Your task to perform on an android device: open app "Google Calendar" (install if not already installed) Image 0: 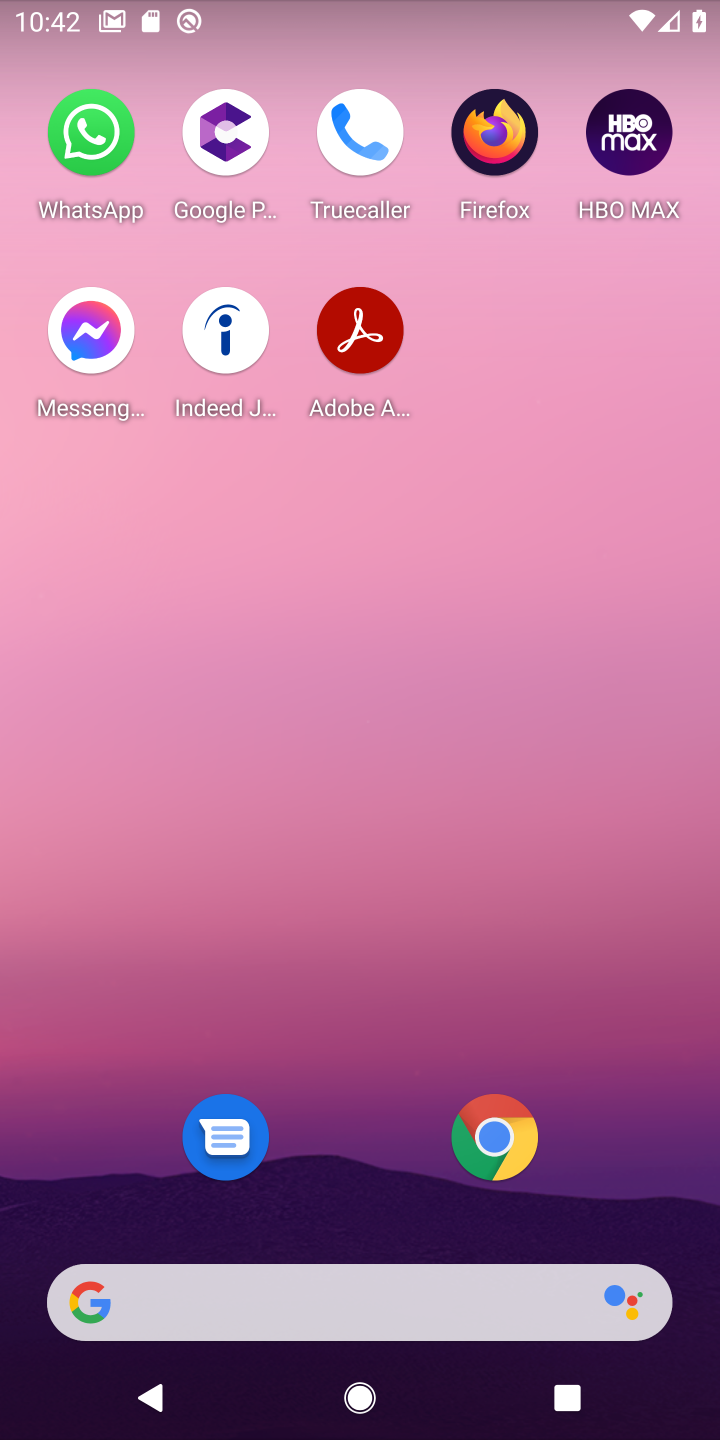
Step 0: drag from (359, 1084) to (244, 0)
Your task to perform on an android device: open app "Google Calendar" (install if not already installed) Image 1: 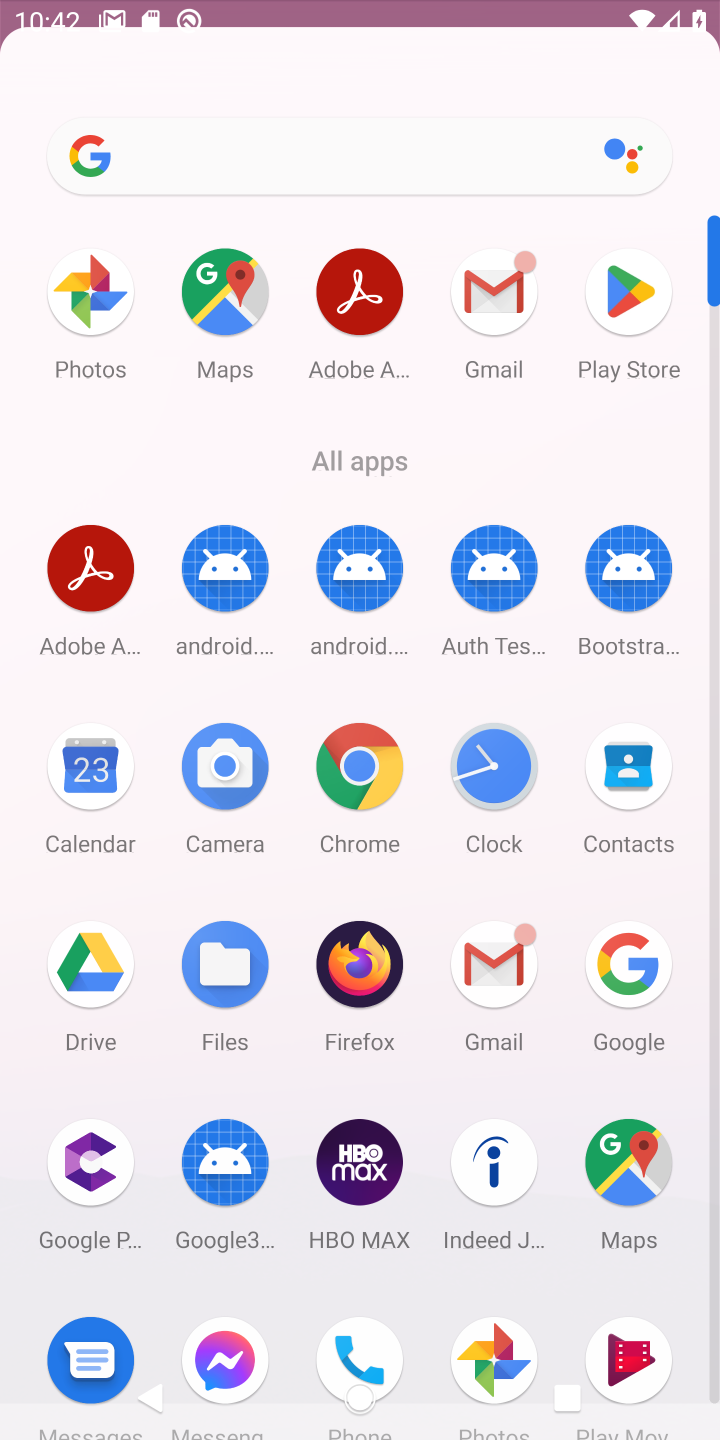
Step 1: click (640, 368)
Your task to perform on an android device: open app "Google Calendar" (install if not already installed) Image 2: 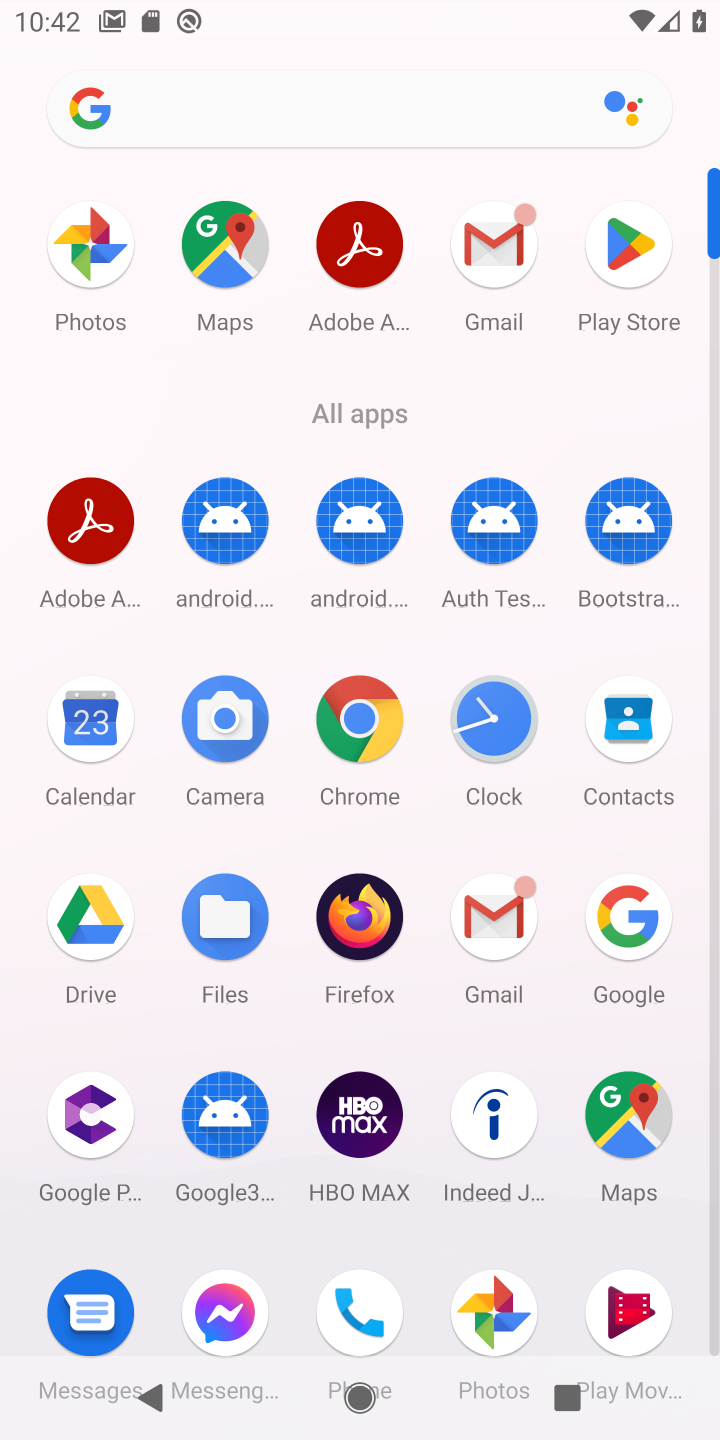
Step 2: click (643, 251)
Your task to perform on an android device: open app "Google Calendar" (install if not already installed) Image 3: 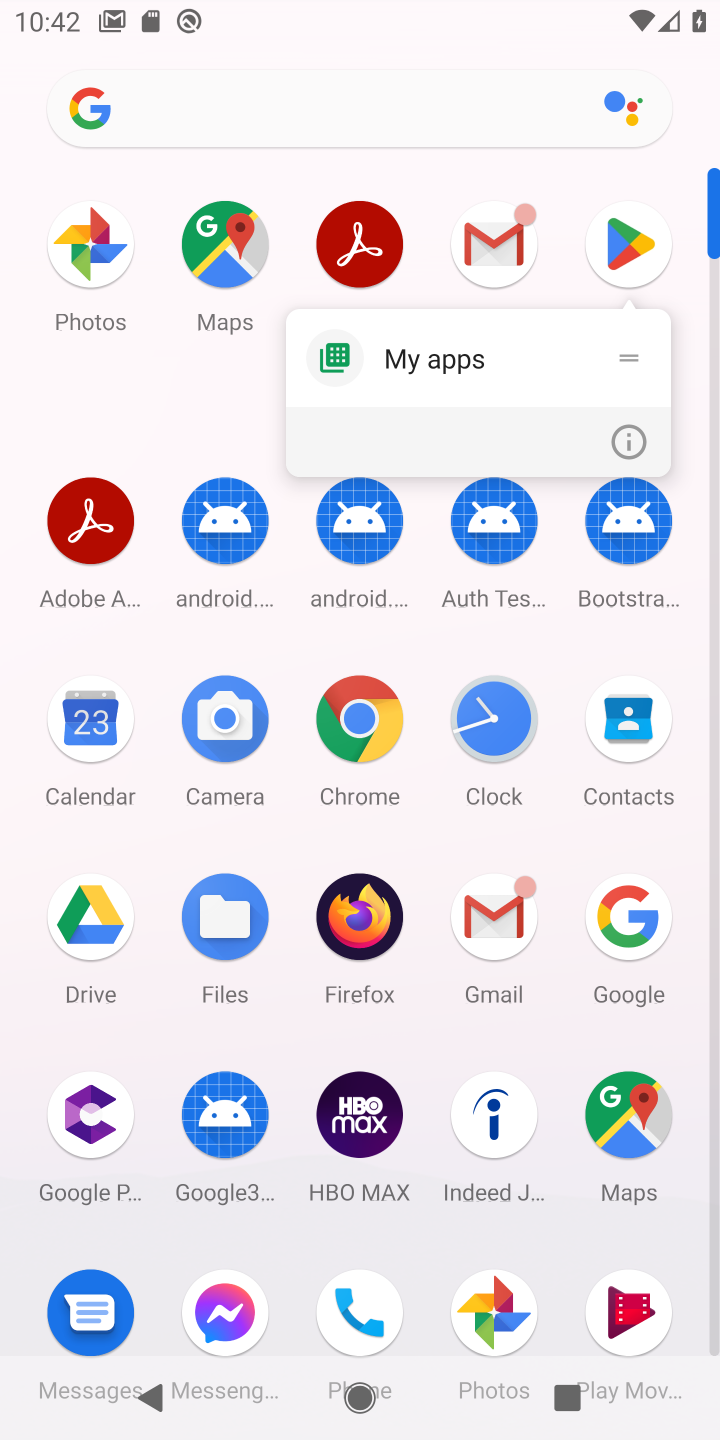
Step 3: click (643, 251)
Your task to perform on an android device: open app "Google Calendar" (install if not already installed) Image 4: 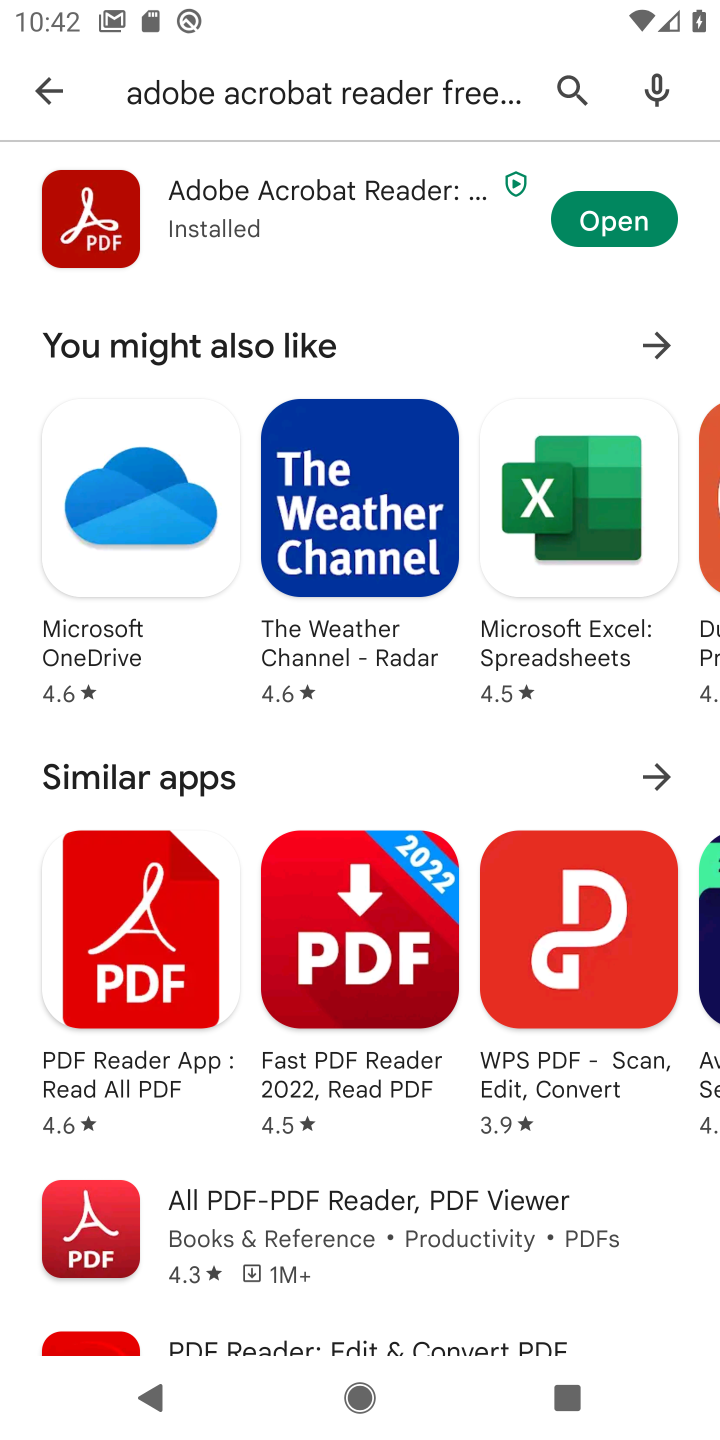
Step 4: click (368, 80)
Your task to perform on an android device: open app "Google Calendar" (install if not already installed) Image 5: 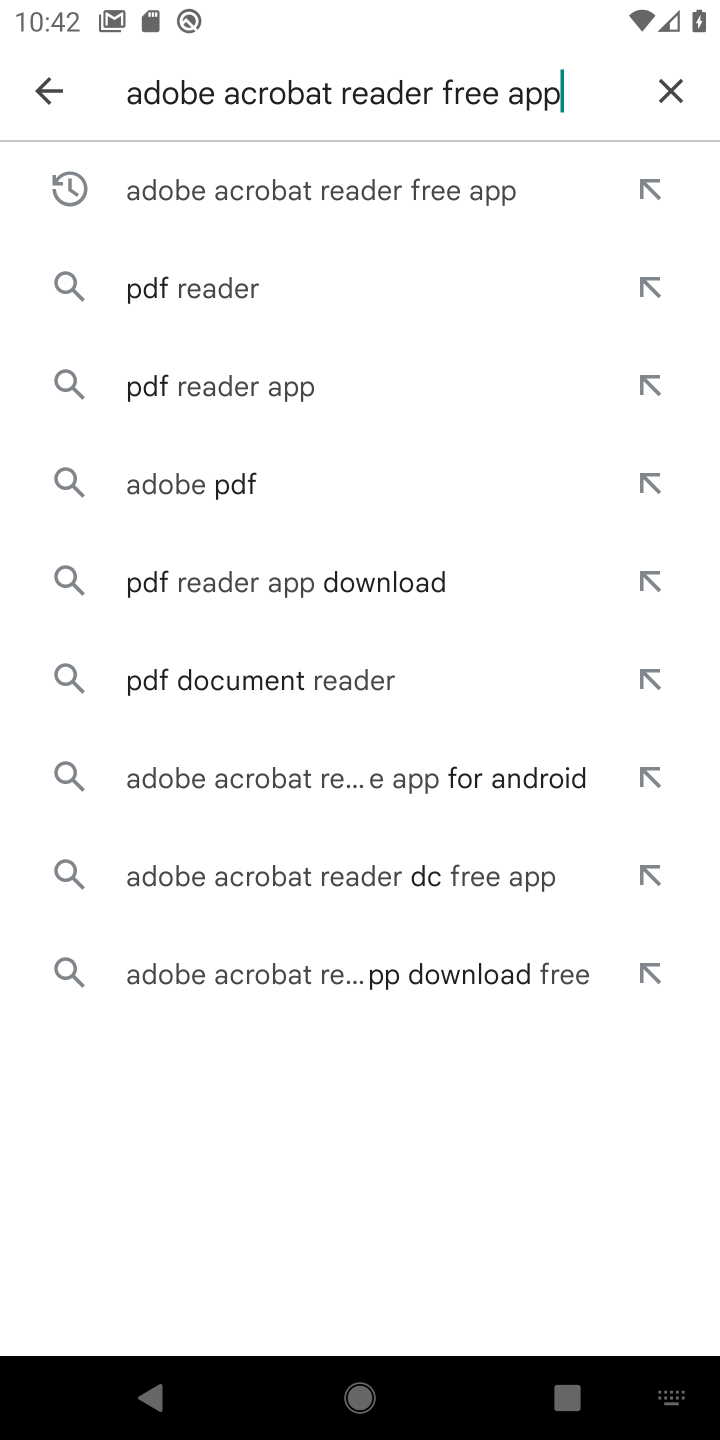
Step 5: click (666, 99)
Your task to perform on an android device: open app "Google Calendar" (install if not already installed) Image 6: 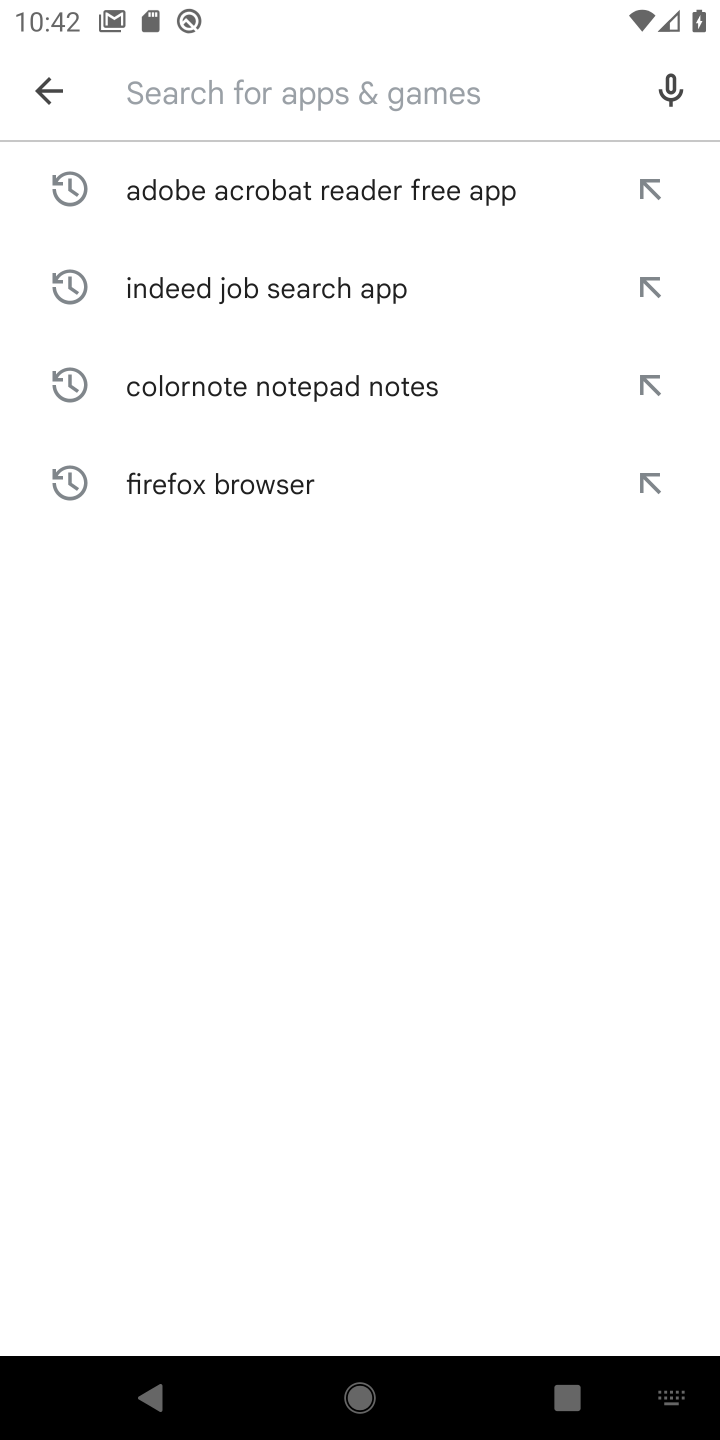
Step 6: type "calender"
Your task to perform on an android device: open app "Google Calendar" (install if not already installed) Image 7: 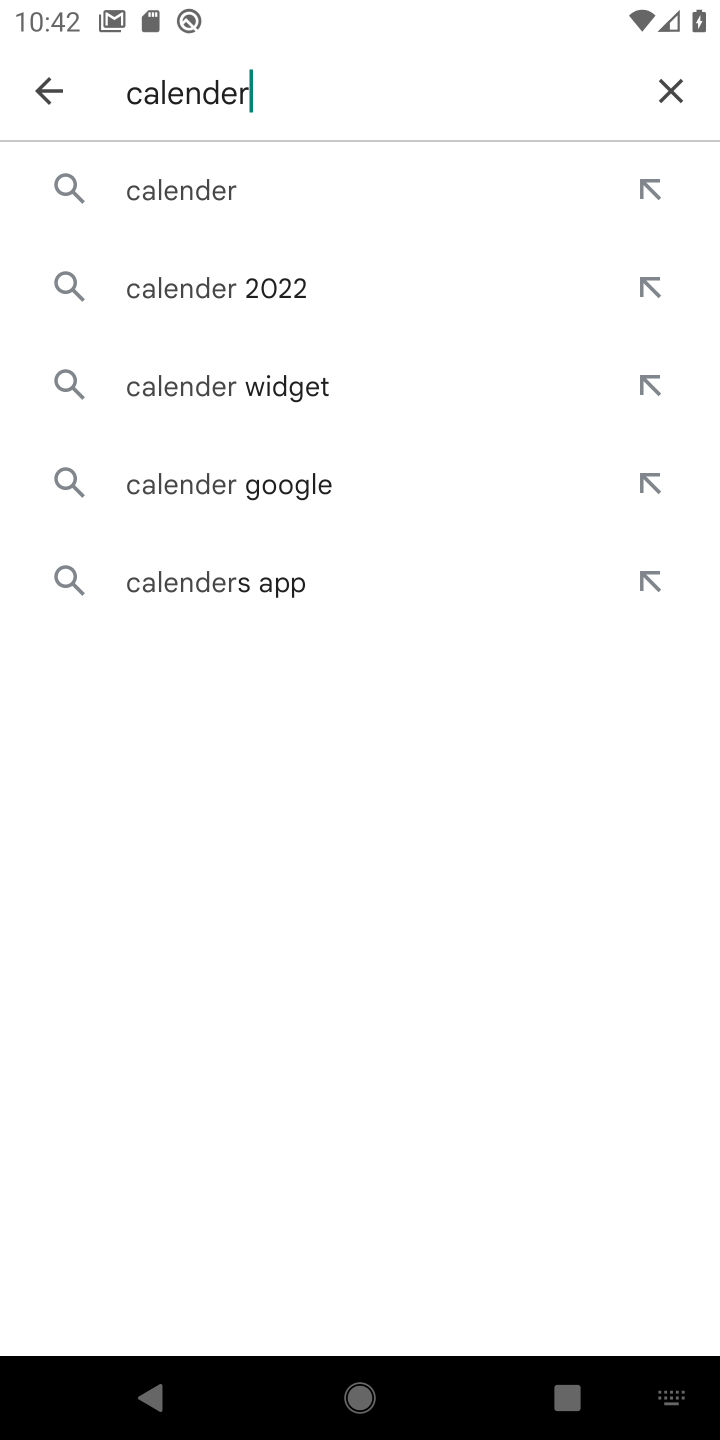
Step 7: click (194, 196)
Your task to perform on an android device: open app "Google Calendar" (install if not already installed) Image 8: 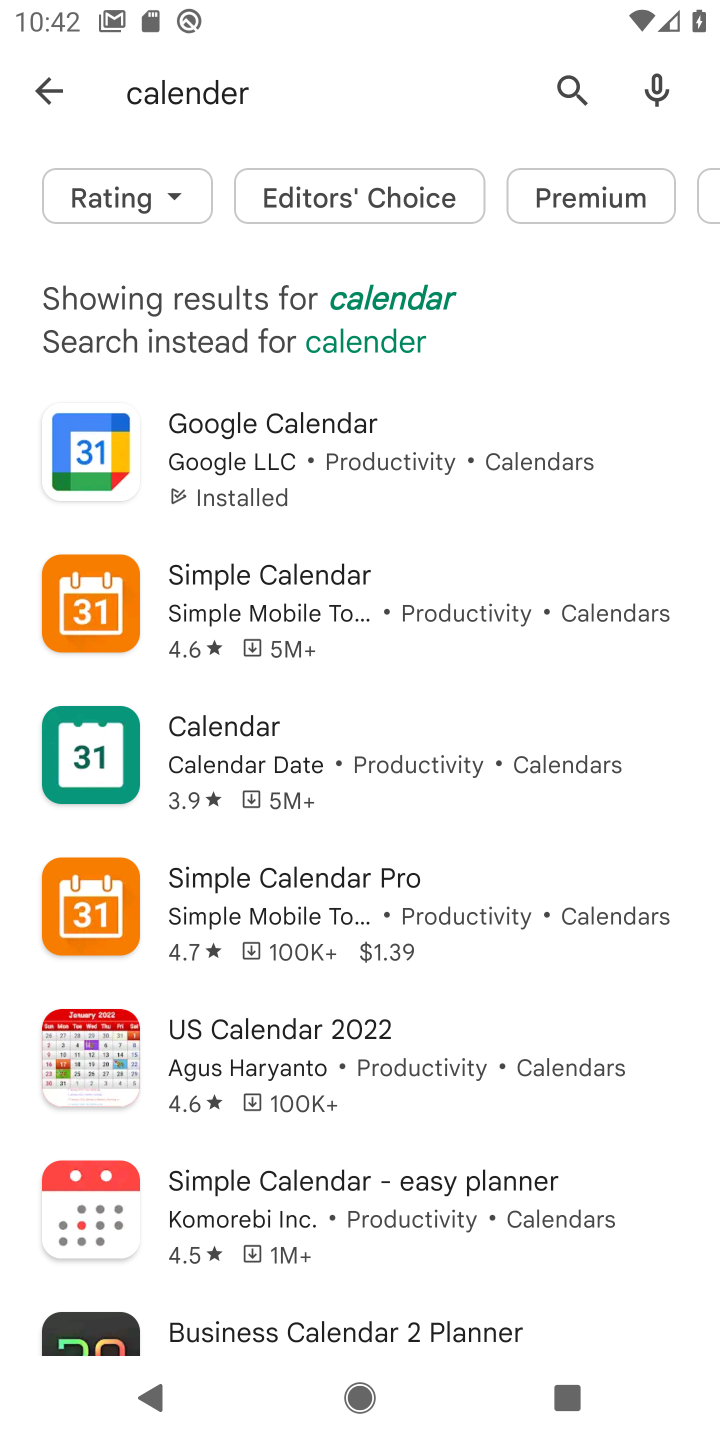
Step 8: click (268, 441)
Your task to perform on an android device: open app "Google Calendar" (install if not already installed) Image 9: 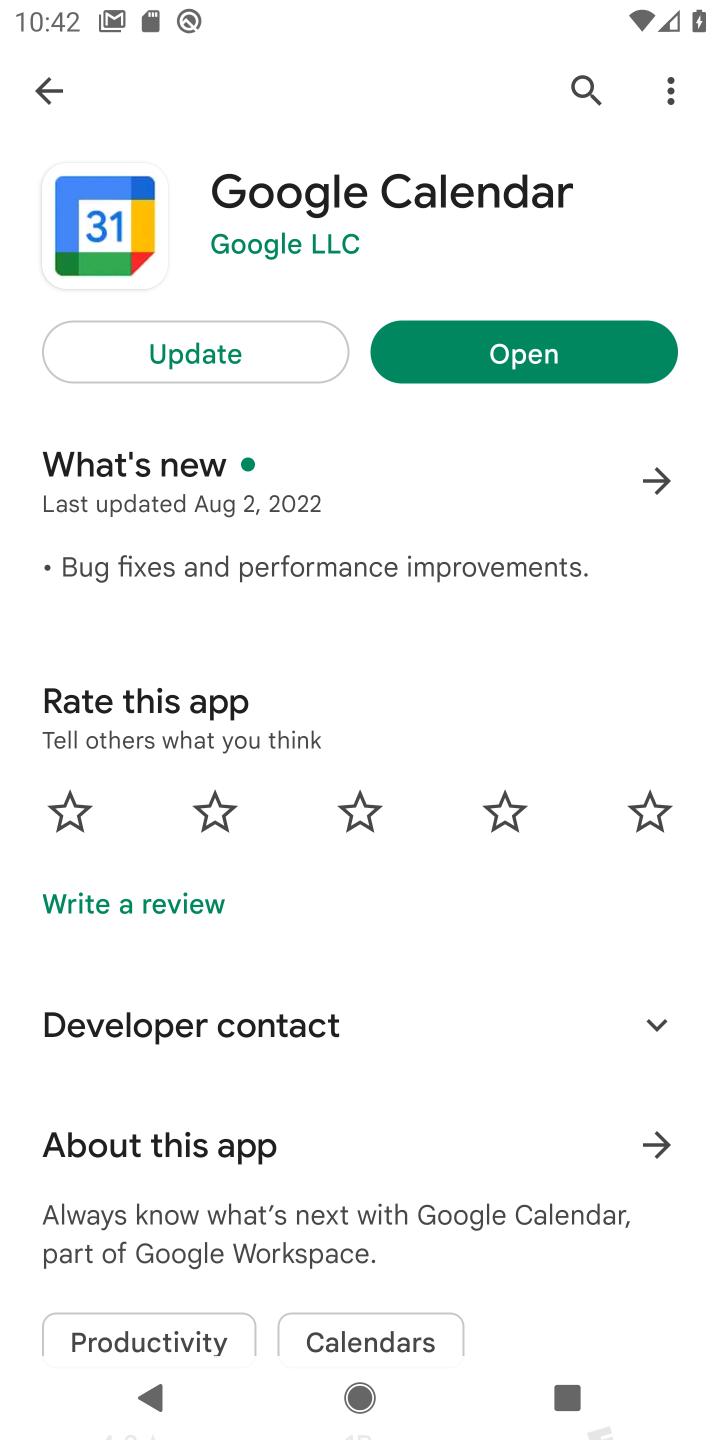
Step 9: click (502, 334)
Your task to perform on an android device: open app "Google Calendar" (install if not already installed) Image 10: 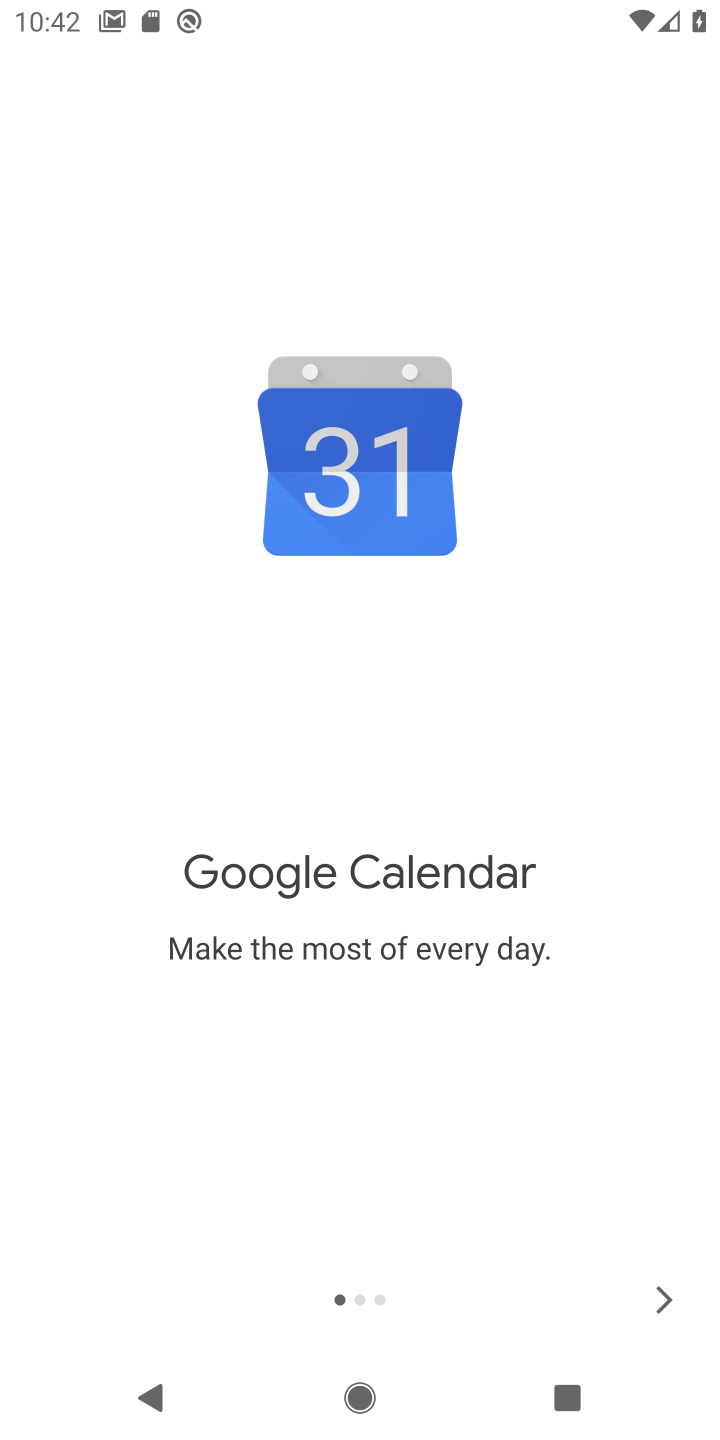
Step 10: click (651, 1302)
Your task to perform on an android device: open app "Google Calendar" (install if not already installed) Image 11: 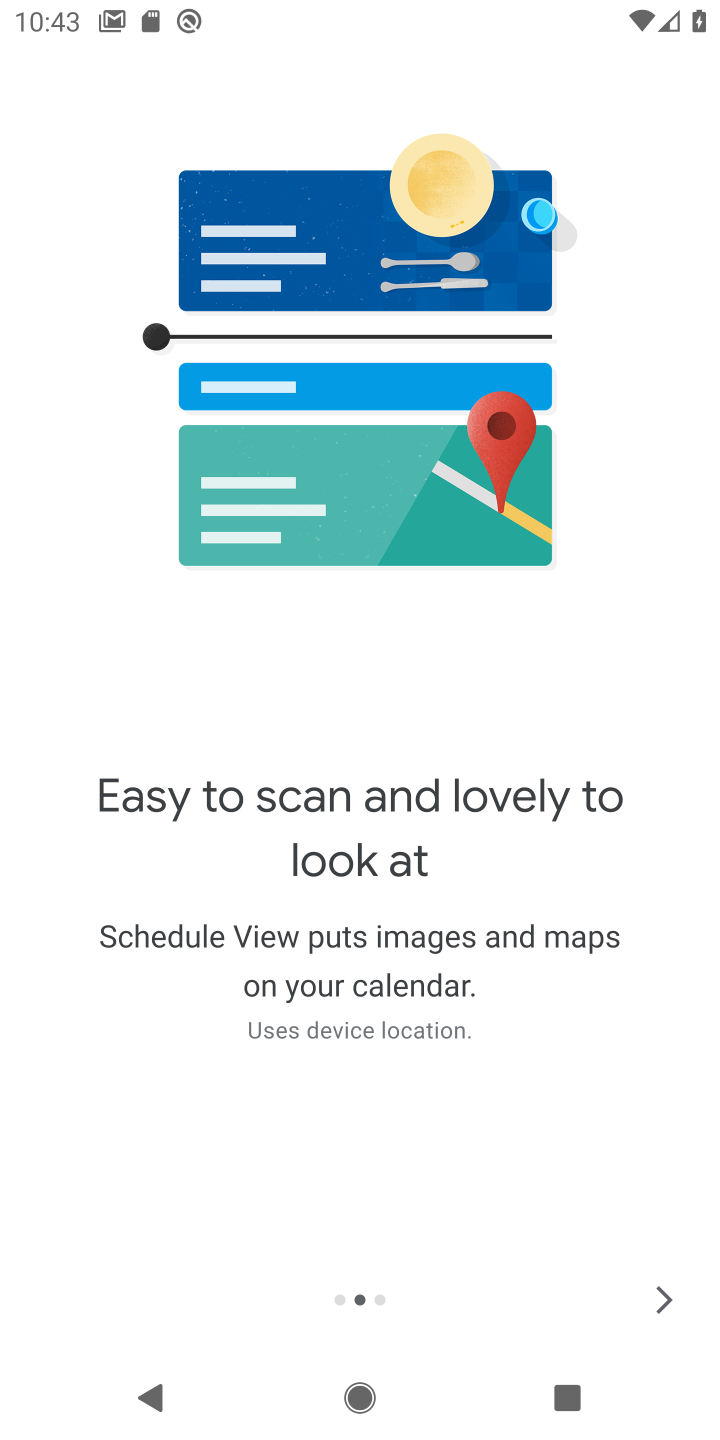
Step 11: click (664, 1302)
Your task to perform on an android device: open app "Google Calendar" (install if not already installed) Image 12: 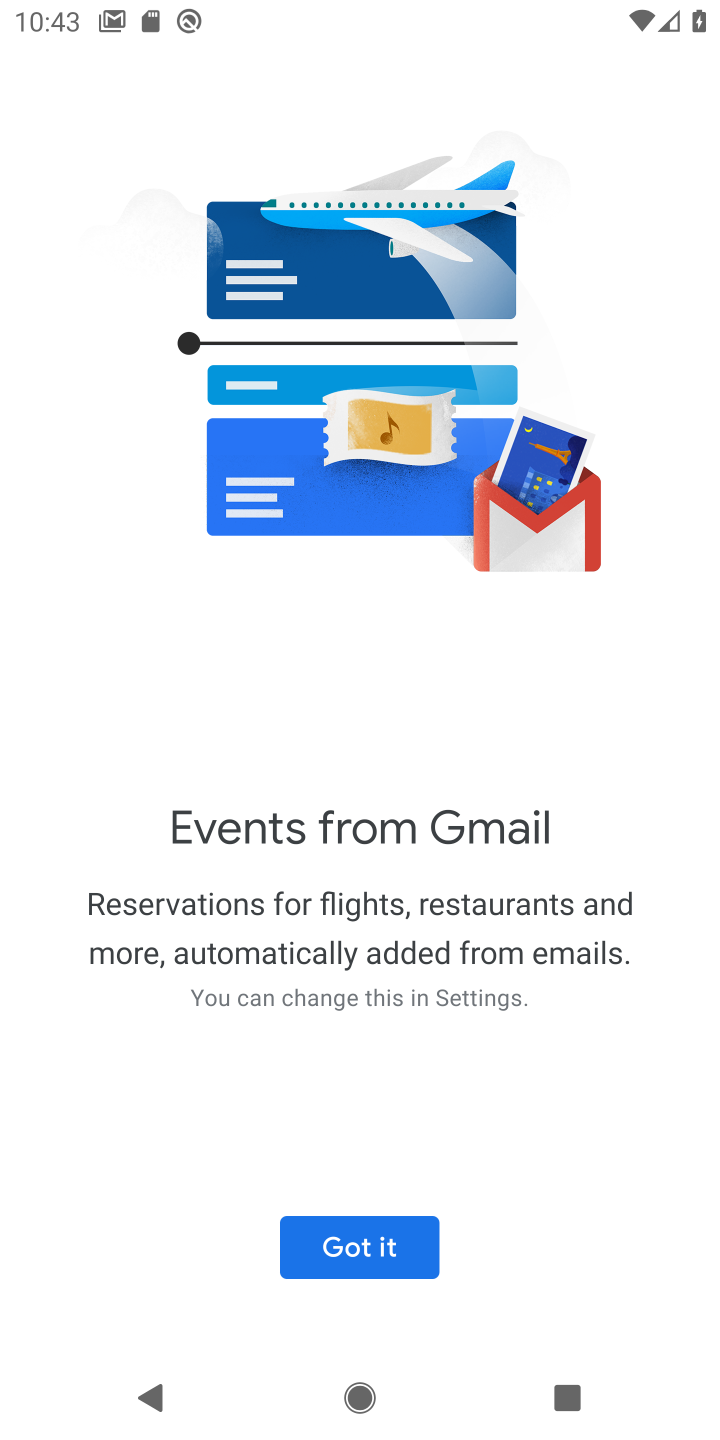
Step 12: click (351, 1237)
Your task to perform on an android device: open app "Google Calendar" (install if not already installed) Image 13: 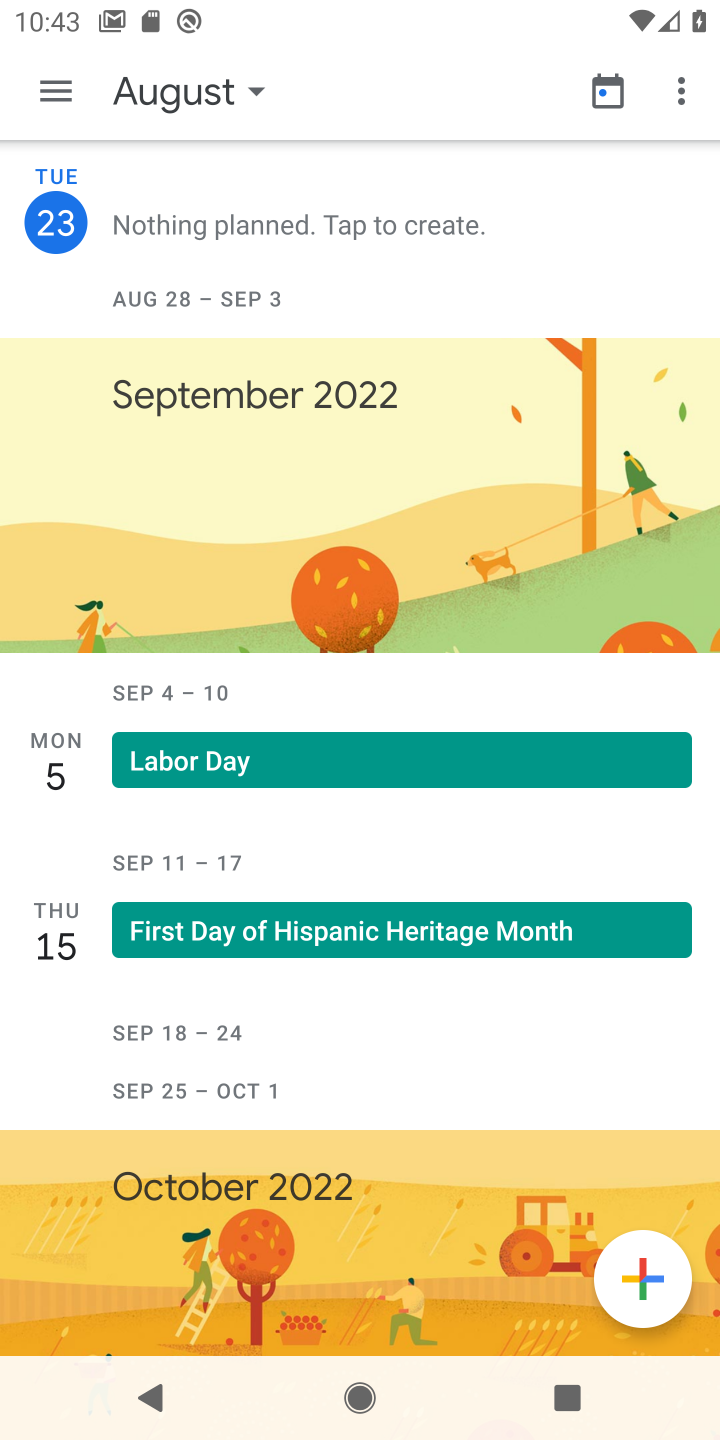
Step 13: task complete